Your task to perform on an android device: Open Maps and search for coffee Image 0: 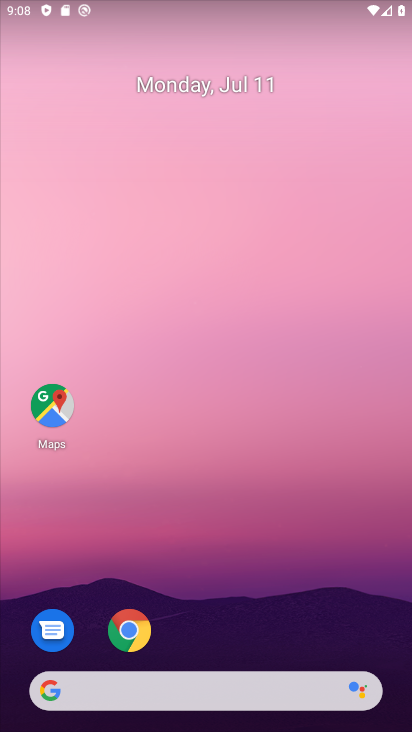
Step 0: drag from (279, 607) to (281, 100)
Your task to perform on an android device: Open Maps and search for coffee Image 1: 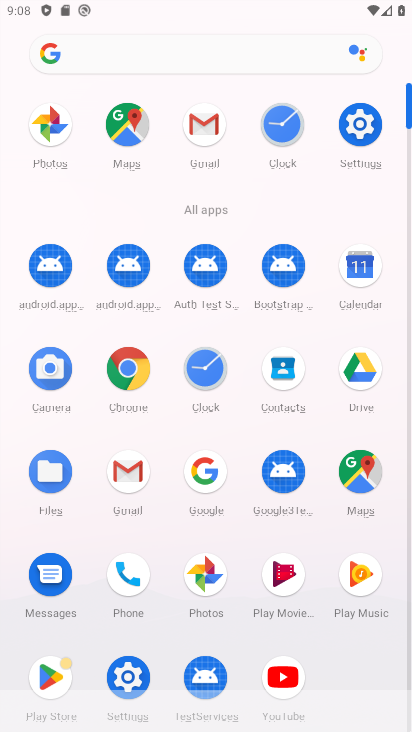
Step 1: click (364, 457)
Your task to perform on an android device: Open Maps and search for coffee Image 2: 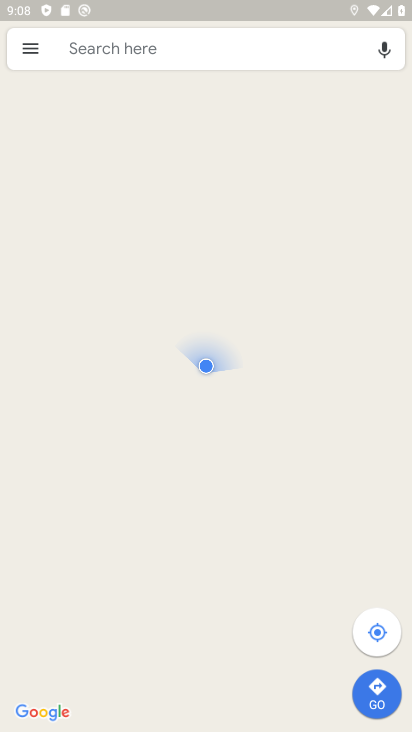
Step 2: click (108, 36)
Your task to perform on an android device: Open Maps and search for coffee Image 3: 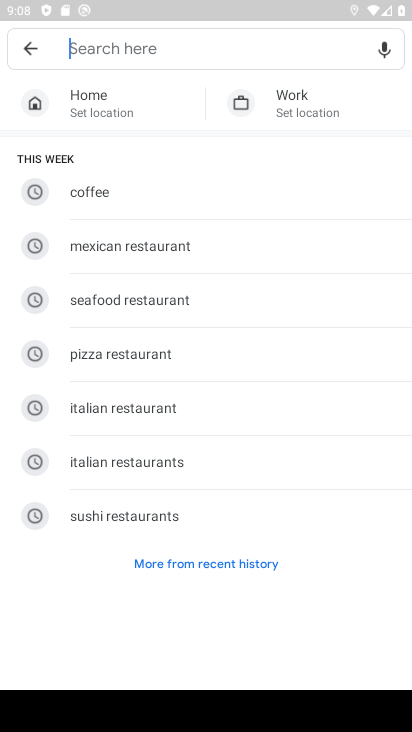
Step 3: type "coffee"
Your task to perform on an android device: Open Maps and search for coffee Image 4: 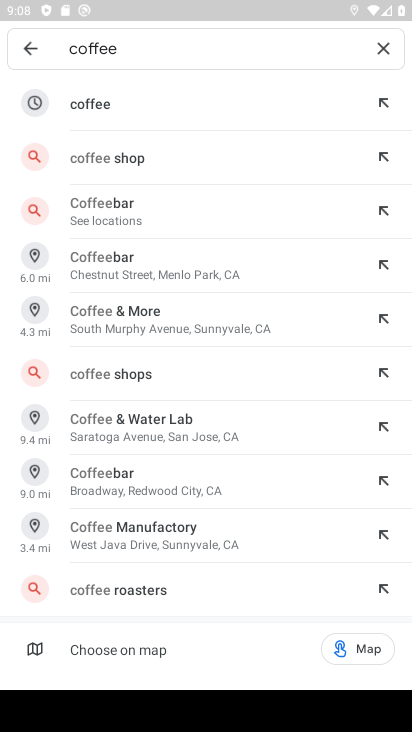
Step 4: click (86, 98)
Your task to perform on an android device: Open Maps and search for coffee Image 5: 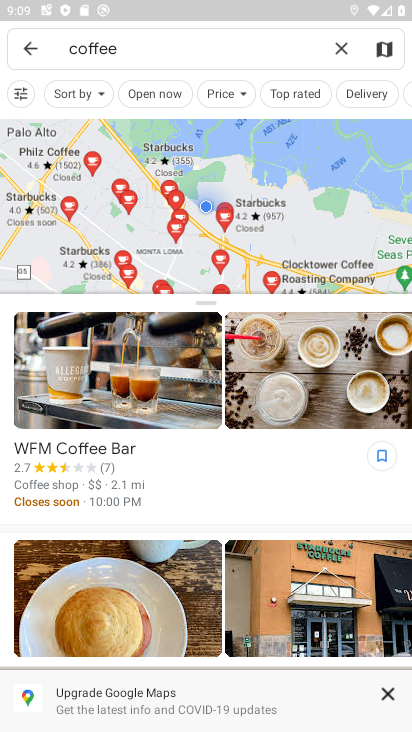
Step 5: task complete